Your task to perform on an android device: Open internet settings Image 0: 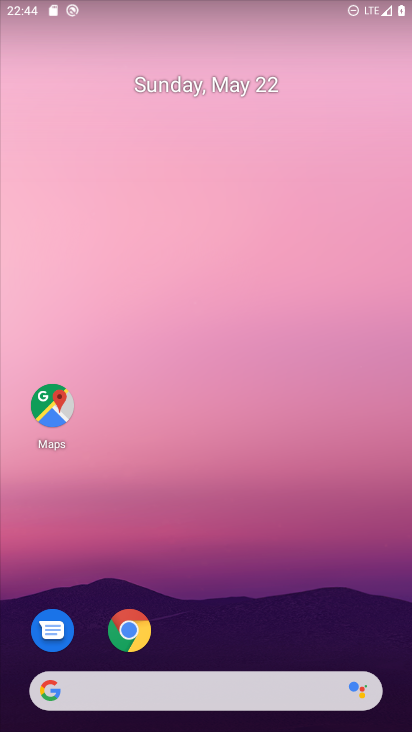
Step 0: press home button
Your task to perform on an android device: Open internet settings Image 1: 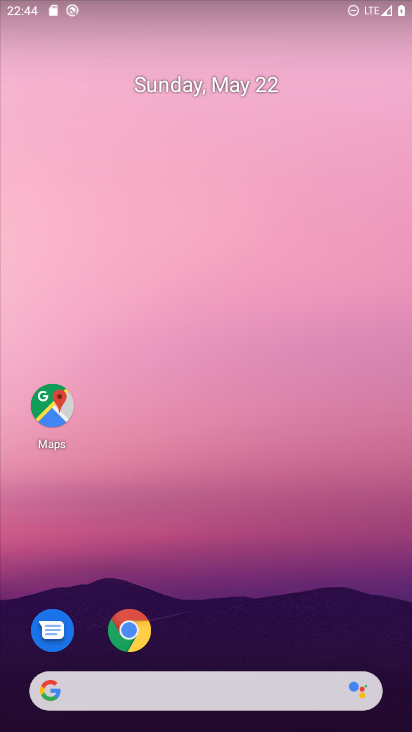
Step 1: drag from (156, 684) to (315, 142)
Your task to perform on an android device: Open internet settings Image 2: 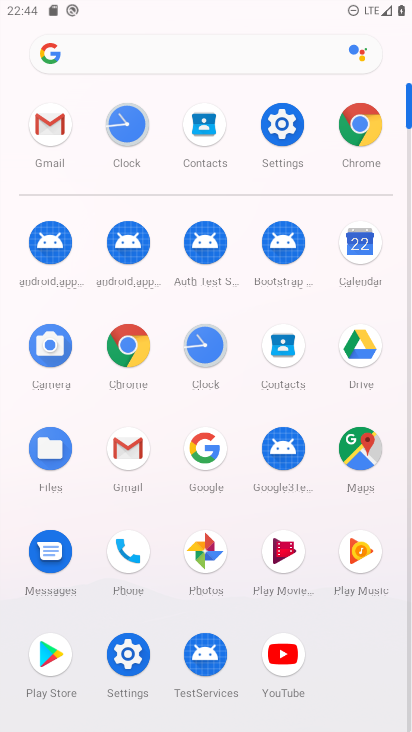
Step 2: click (272, 124)
Your task to perform on an android device: Open internet settings Image 3: 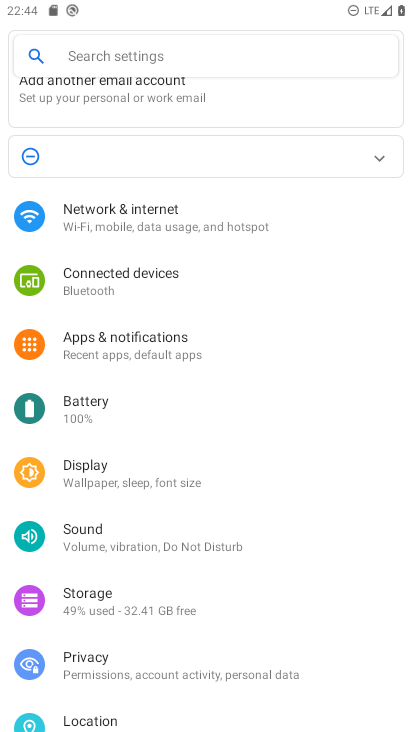
Step 3: click (162, 217)
Your task to perform on an android device: Open internet settings Image 4: 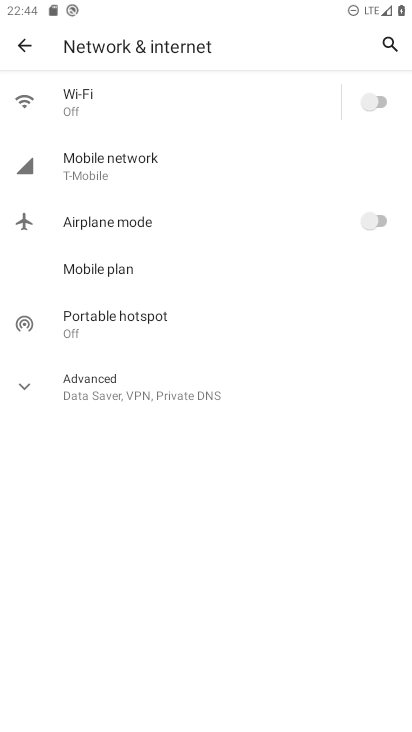
Step 4: task complete